Your task to perform on an android device: open a bookmark in the chrome app Image 0: 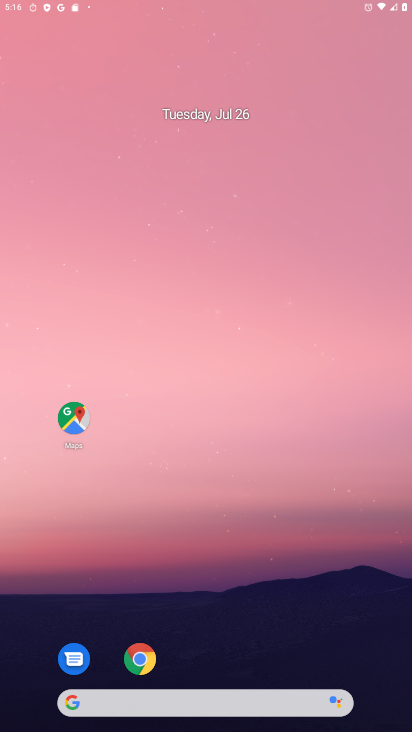
Step 0: press home button
Your task to perform on an android device: open a bookmark in the chrome app Image 1: 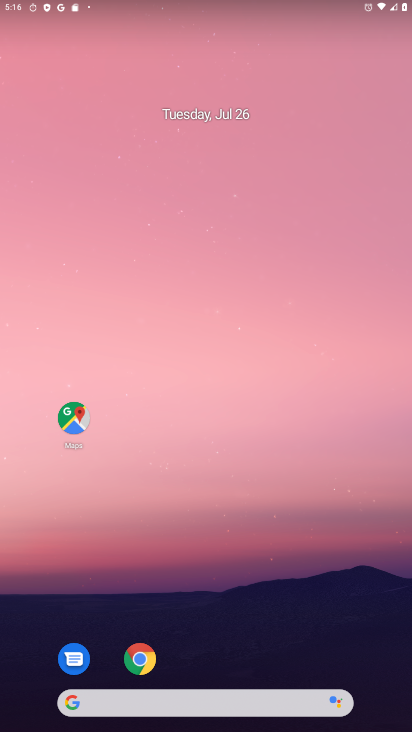
Step 1: click (138, 653)
Your task to perform on an android device: open a bookmark in the chrome app Image 2: 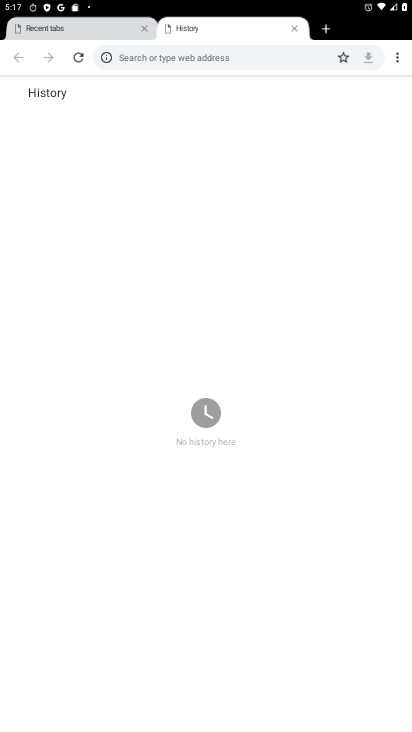
Step 2: click (396, 61)
Your task to perform on an android device: open a bookmark in the chrome app Image 3: 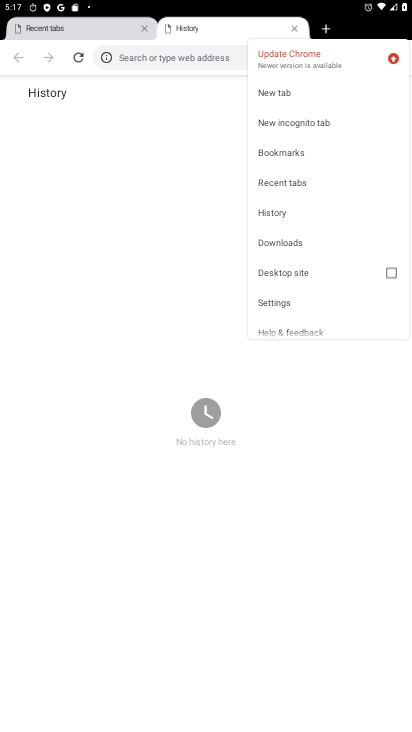
Step 3: click (307, 153)
Your task to perform on an android device: open a bookmark in the chrome app Image 4: 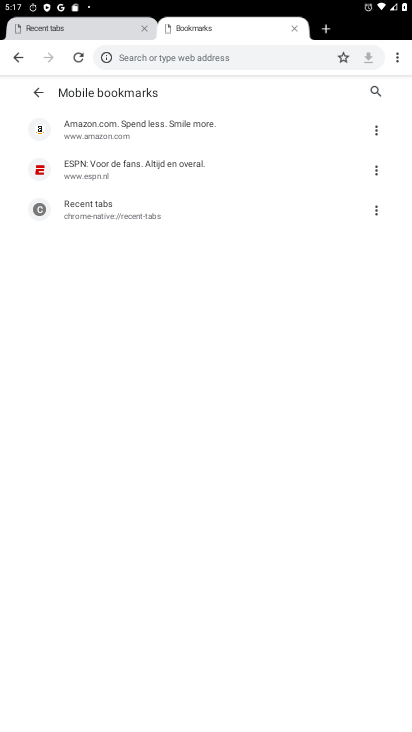
Step 4: click (153, 124)
Your task to perform on an android device: open a bookmark in the chrome app Image 5: 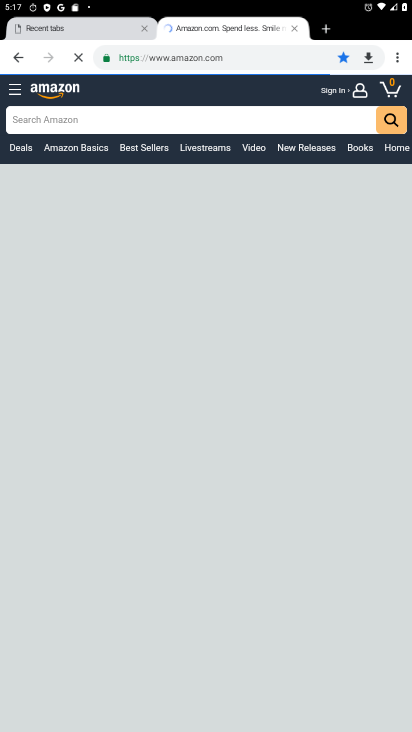
Step 5: task complete